Your task to perform on an android device: Open Google Chrome Image 0: 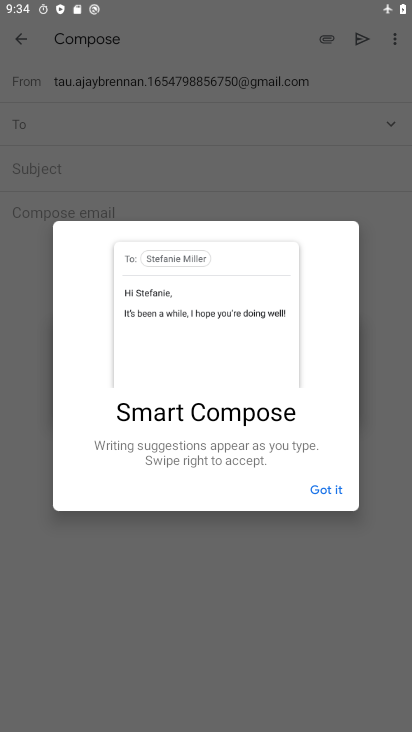
Step 0: press home button
Your task to perform on an android device: Open Google Chrome Image 1: 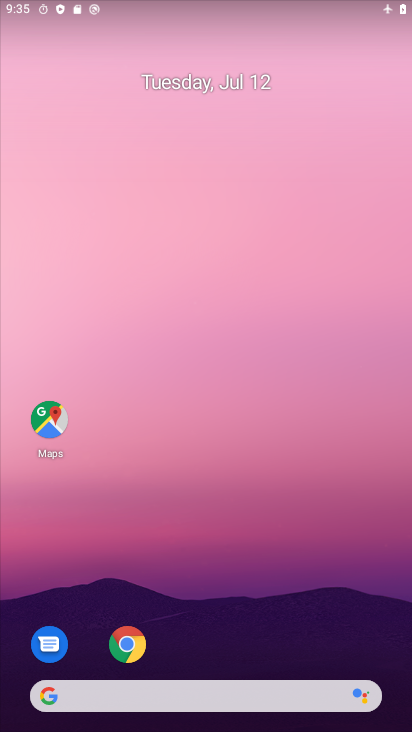
Step 1: click (126, 648)
Your task to perform on an android device: Open Google Chrome Image 2: 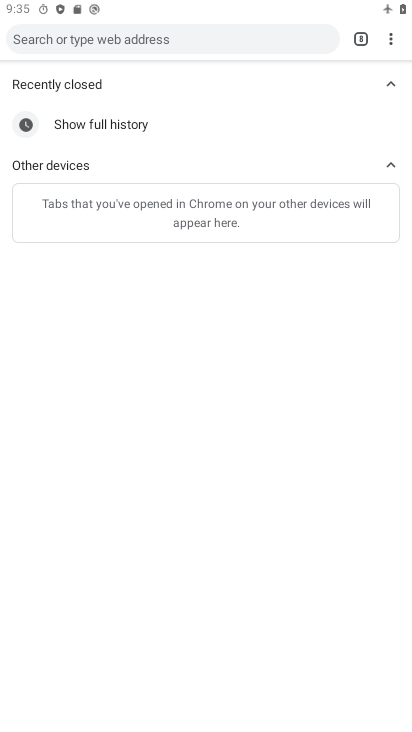
Step 2: task complete